Your task to perform on an android device: What is the news today? Image 0: 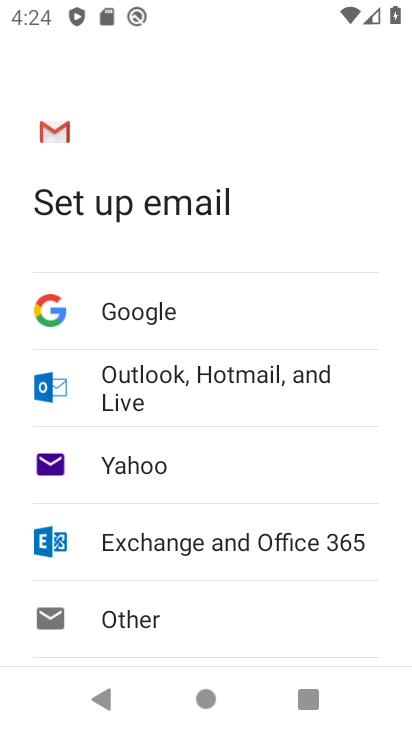
Step 0: press back button
Your task to perform on an android device: What is the news today? Image 1: 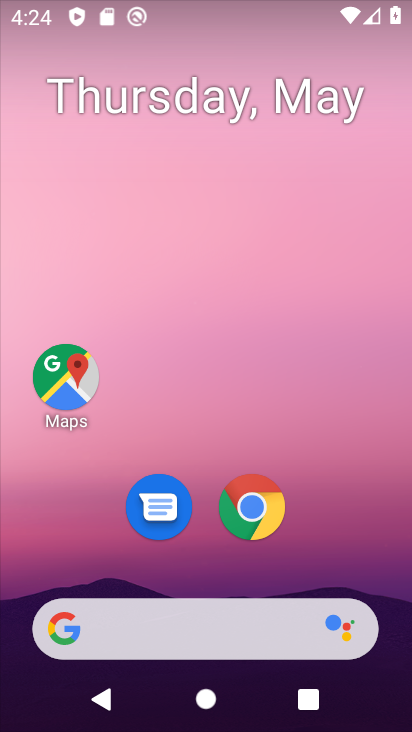
Step 1: task complete